Your task to perform on an android device: turn off wifi Image 0: 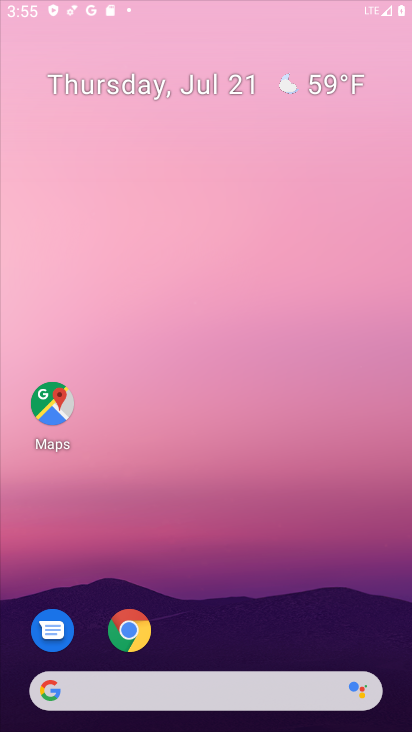
Step 0: drag from (219, 611) to (195, 84)
Your task to perform on an android device: turn off wifi Image 1: 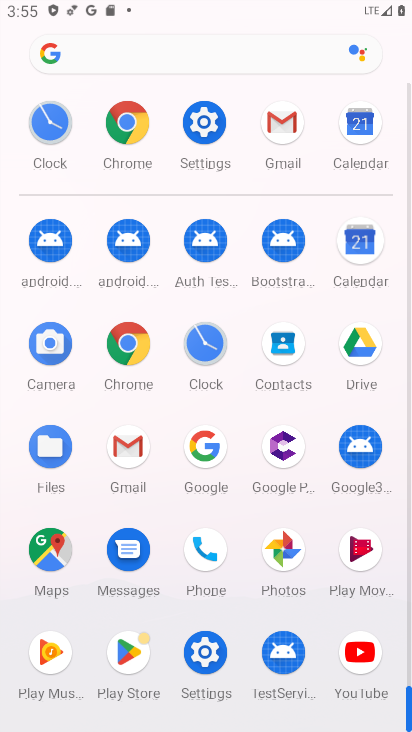
Step 1: drag from (260, 590) to (229, 44)
Your task to perform on an android device: turn off wifi Image 2: 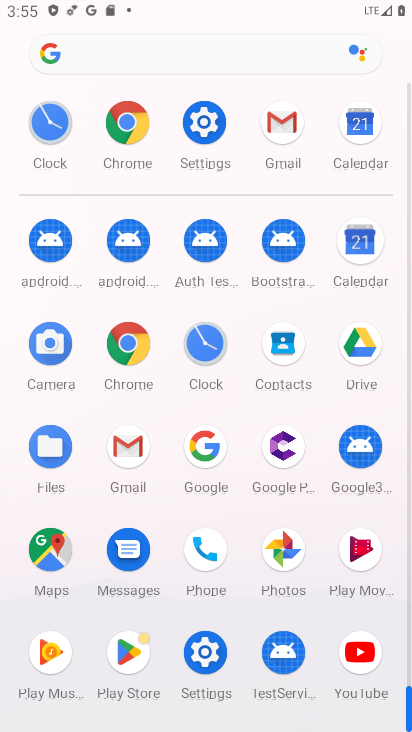
Step 2: click (198, 112)
Your task to perform on an android device: turn off wifi Image 3: 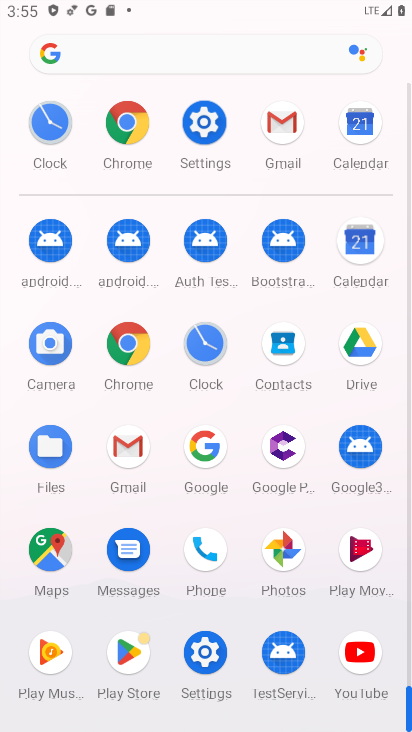
Step 3: click (201, 117)
Your task to perform on an android device: turn off wifi Image 4: 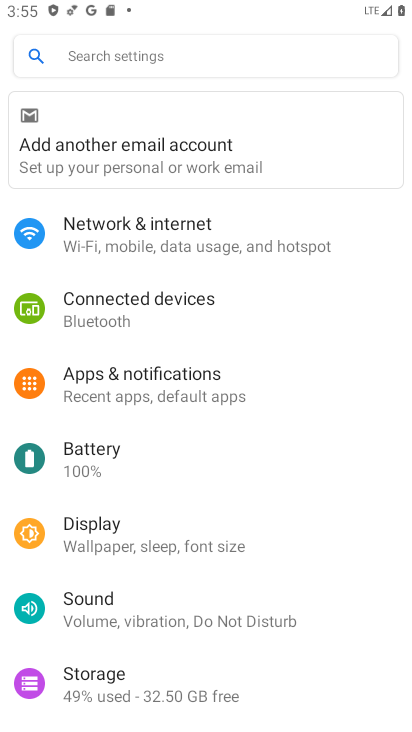
Step 4: click (140, 238)
Your task to perform on an android device: turn off wifi Image 5: 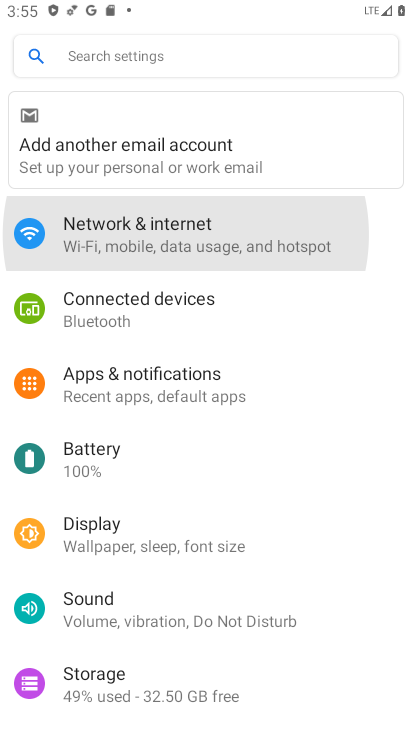
Step 5: click (142, 230)
Your task to perform on an android device: turn off wifi Image 6: 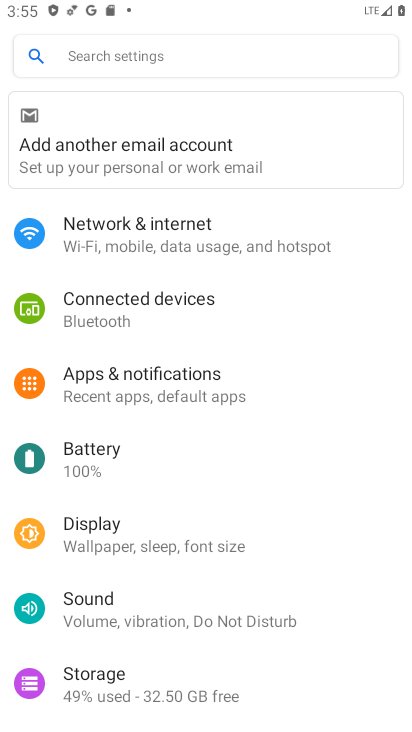
Step 6: click (144, 235)
Your task to perform on an android device: turn off wifi Image 7: 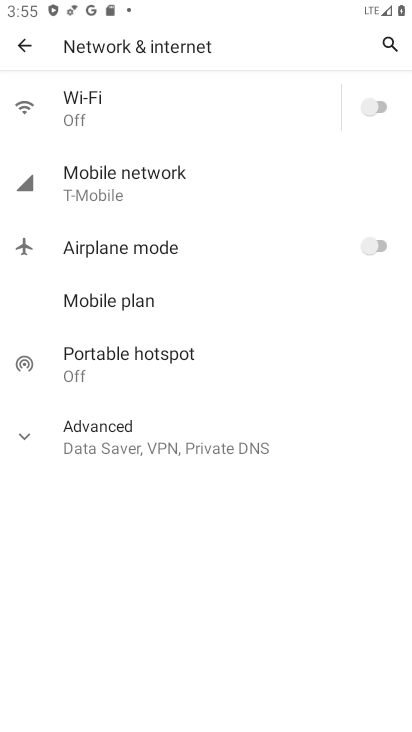
Step 7: click (372, 105)
Your task to perform on an android device: turn off wifi Image 8: 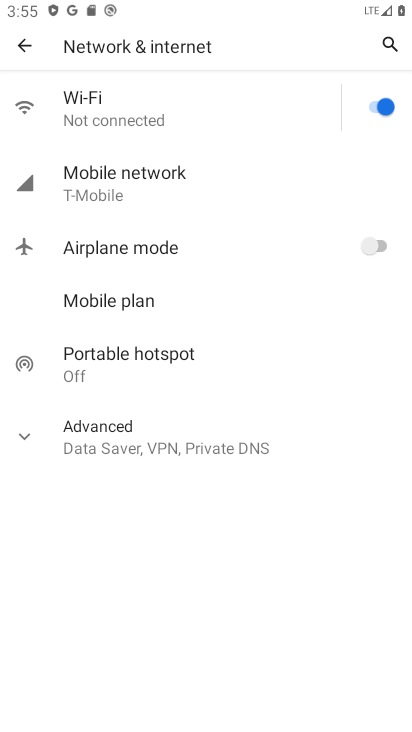
Step 8: click (387, 111)
Your task to perform on an android device: turn off wifi Image 9: 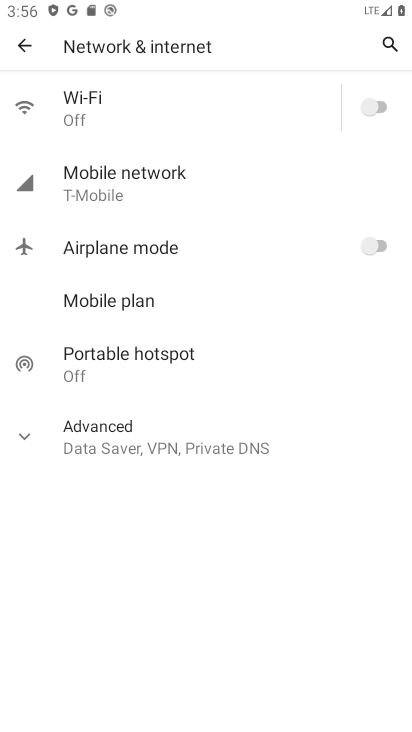
Step 9: task complete